Your task to perform on an android device: Empty the shopping cart on bestbuy. Search for razer huntsman on bestbuy, select the first entry, add it to the cart, then select checkout. Image 0: 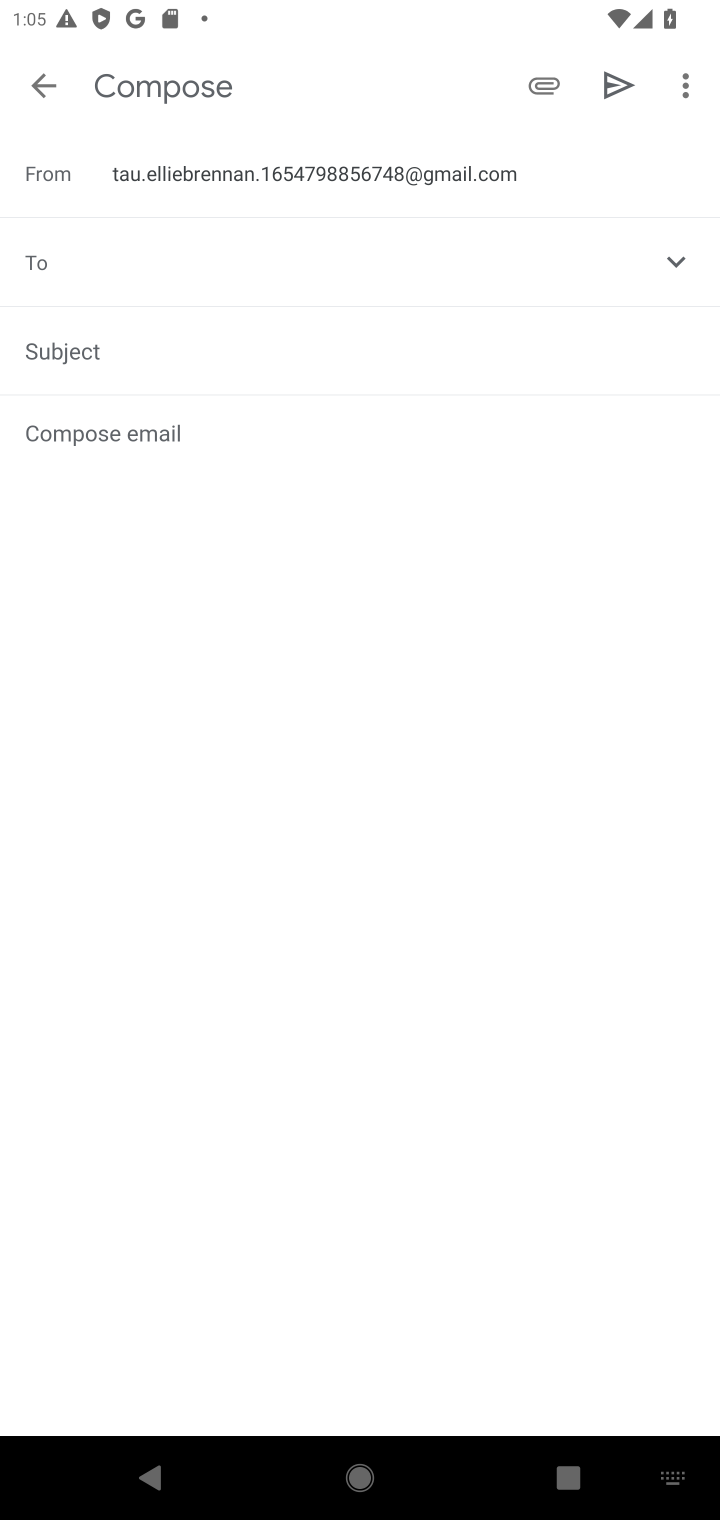
Step 0: task complete